Your task to perform on an android device: What's on my calendar today? Image 0: 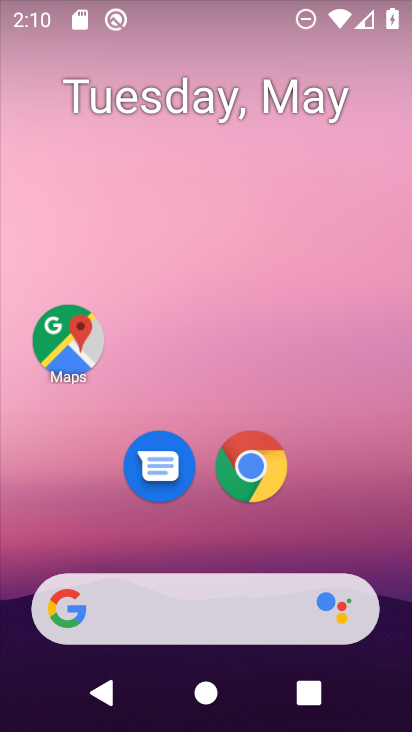
Step 0: click (361, 0)
Your task to perform on an android device: What's on my calendar today? Image 1: 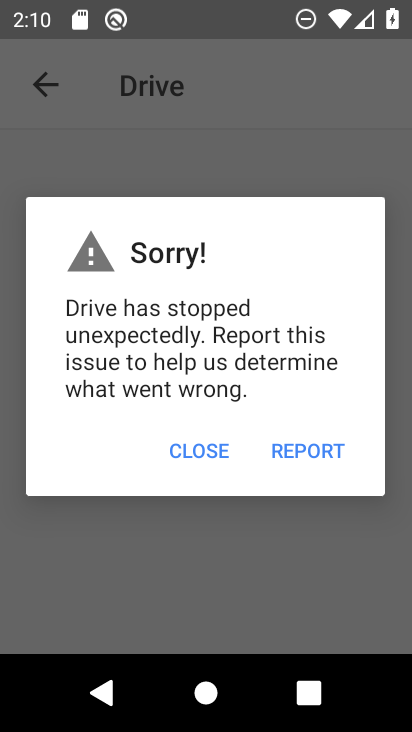
Step 1: press home button
Your task to perform on an android device: What's on my calendar today? Image 2: 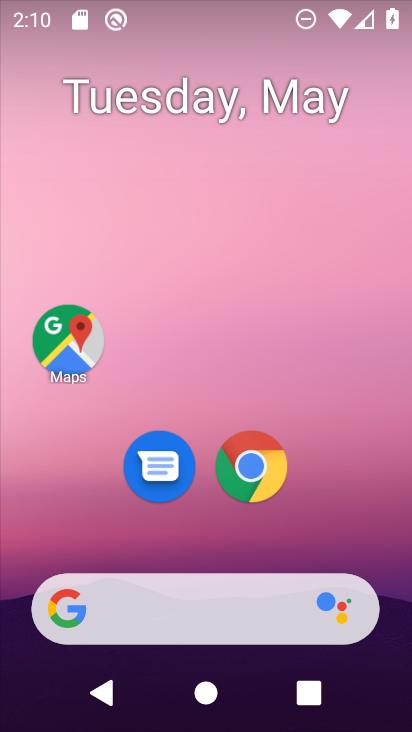
Step 2: drag from (328, 555) to (389, 23)
Your task to perform on an android device: What's on my calendar today? Image 3: 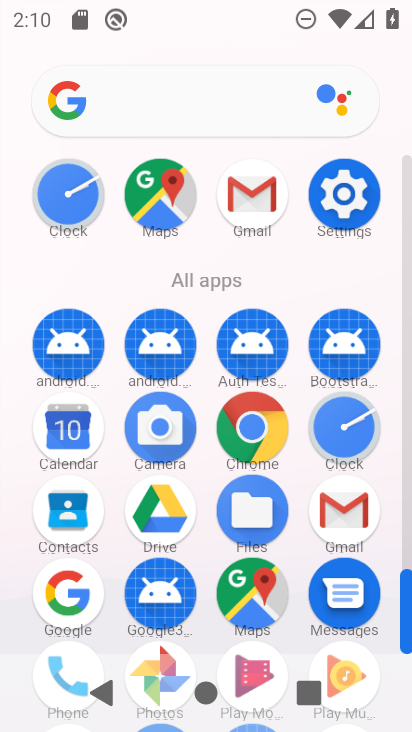
Step 3: click (54, 429)
Your task to perform on an android device: What's on my calendar today? Image 4: 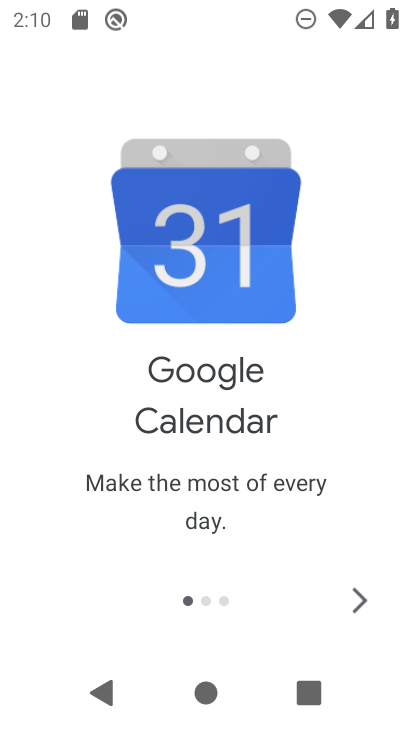
Step 4: click (355, 597)
Your task to perform on an android device: What's on my calendar today? Image 5: 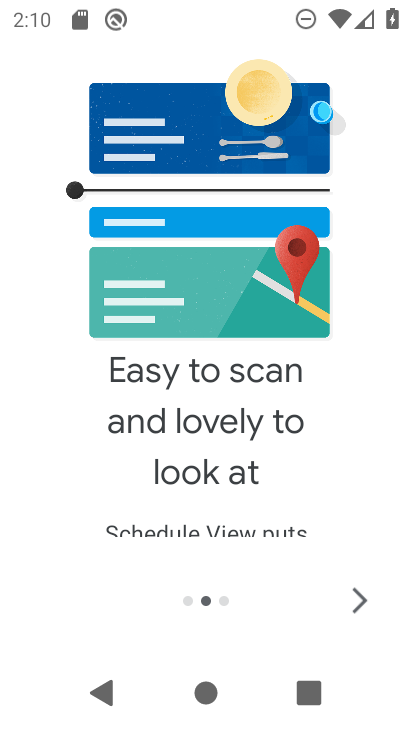
Step 5: click (349, 594)
Your task to perform on an android device: What's on my calendar today? Image 6: 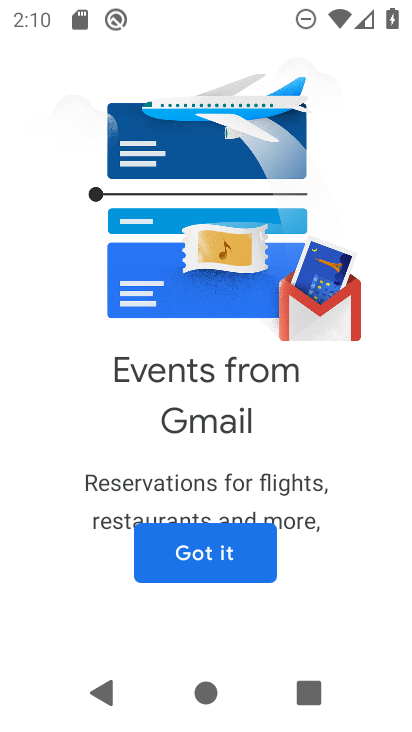
Step 6: click (161, 550)
Your task to perform on an android device: What's on my calendar today? Image 7: 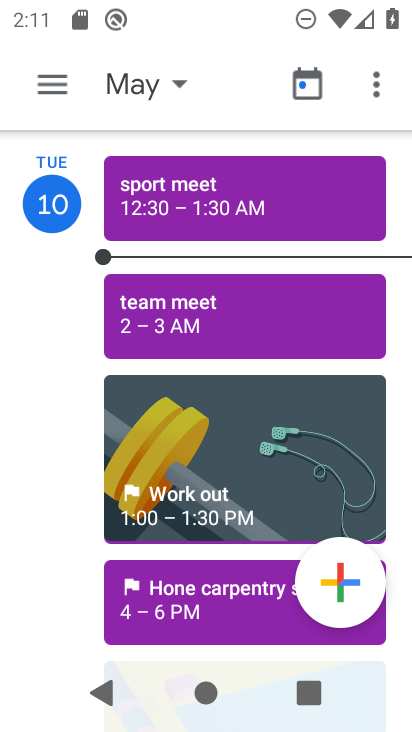
Step 7: click (151, 68)
Your task to perform on an android device: What's on my calendar today? Image 8: 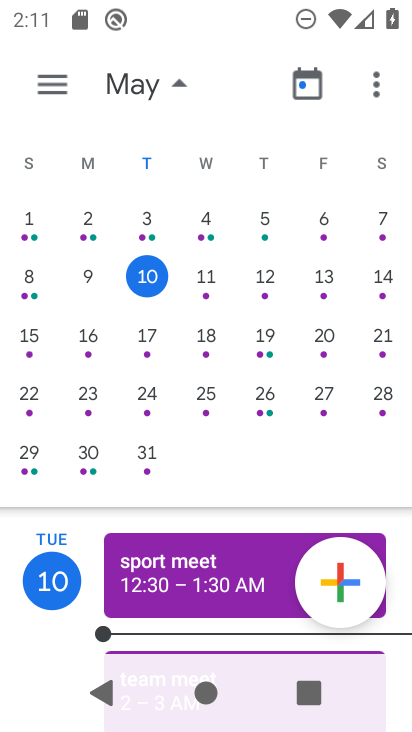
Step 8: click (150, 280)
Your task to perform on an android device: What's on my calendar today? Image 9: 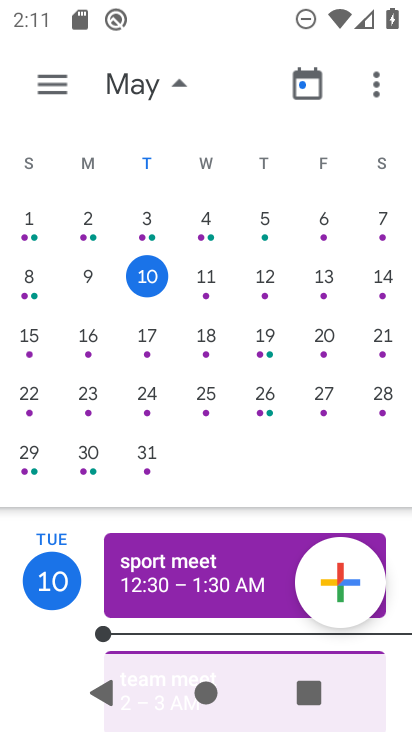
Step 9: task complete